Your task to perform on an android device: change text size in settings app Image 0: 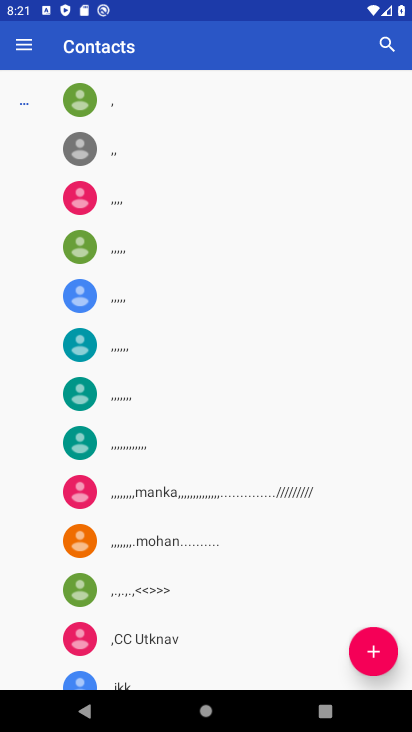
Step 0: press home button
Your task to perform on an android device: change text size in settings app Image 1: 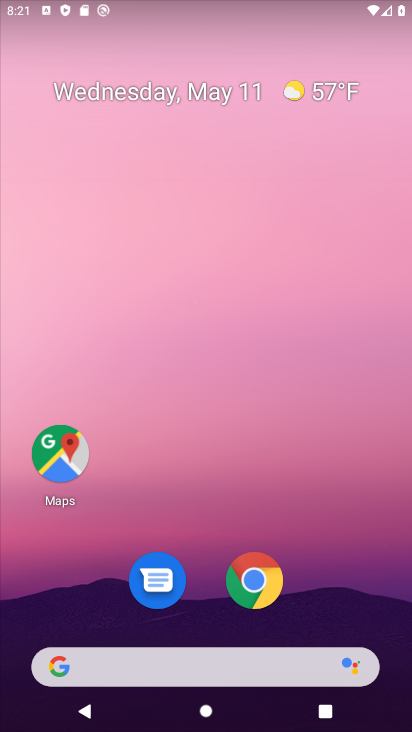
Step 1: drag from (257, 718) to (302, 62)
Your task to perform on an android device: change text size in settings app Image 2: 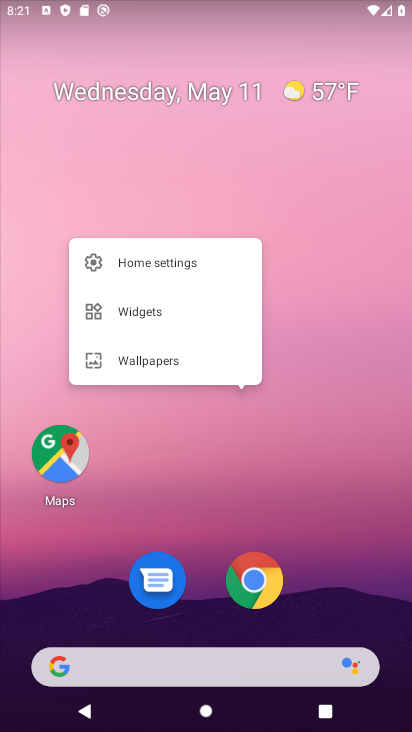
Step 2: press home button
Your task to perform on an android device: change text size in settings app Image 3: 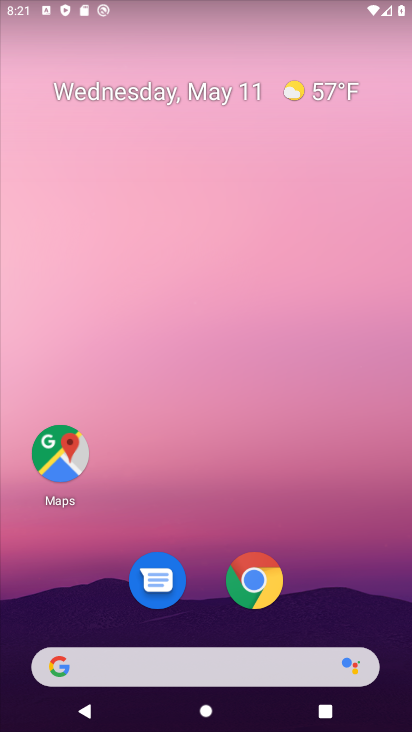
Step 3: press home button
Your task to perform on an android device: change text size in settings app Image 4: 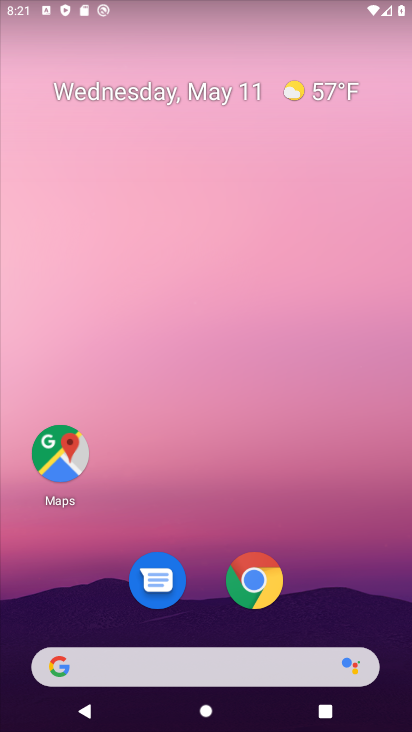
Step 4: drag from (231, 721) to (195, 115)
Your task to perform on an android device: change text size in settings app Image 5: 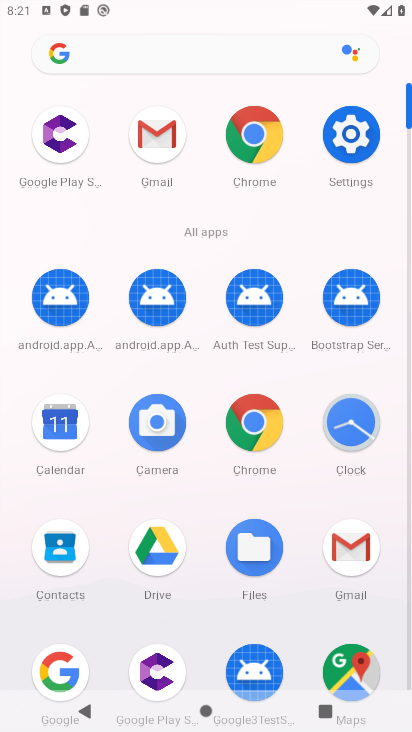
Step 5: click (346, 142)
Your task to perform on an android device: change text size in settings app Image 6: 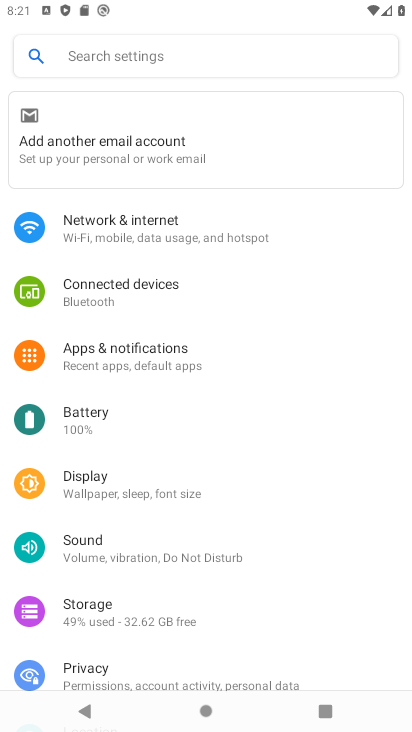
Step 6: click (174, 482)
Your task to perform on an android device: change text size in settings app Image 7: 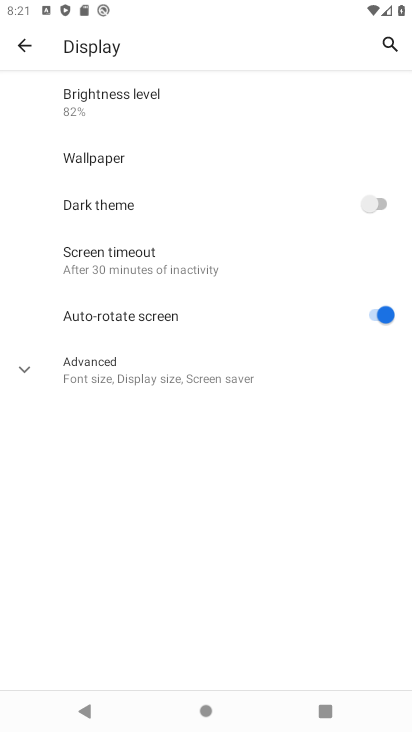
Step 7: click (162, 369)
Your task to perform on an android device: change text size in settings app Image 8: 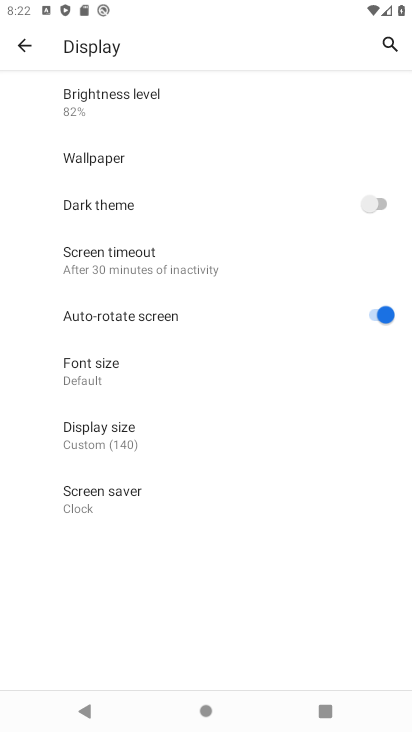
Step 8: click (101, 383)
Your task to perform on an android device: change text size in settings app Image 9: 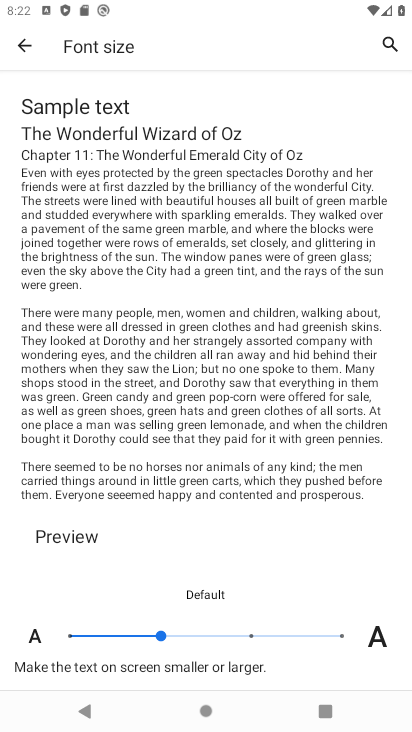
Step 9: click (72, 638)
Your task to perform on an android device: change text size in settings app Image 10: 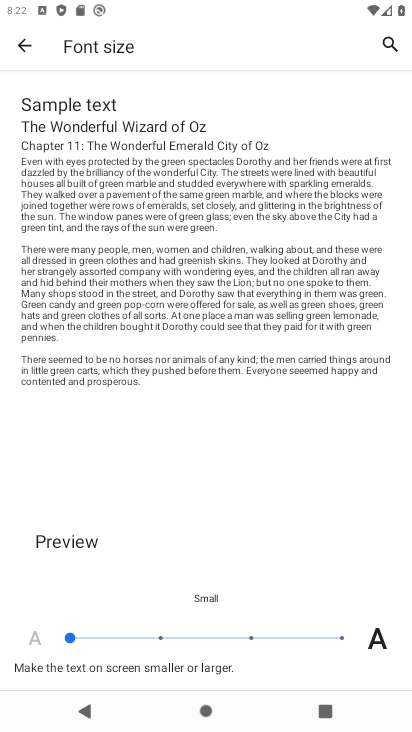
Step 10: task complete